Your task to perform on an android device: check the backup settings in the google photos Image 0: 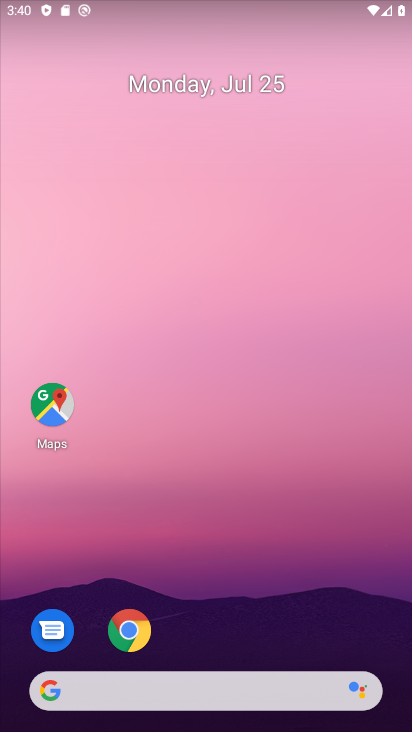
Step 0: drag from (281, 642) to (254, 70)
Your task to perform on an android device: check the backup settings in the google photos Image 1: 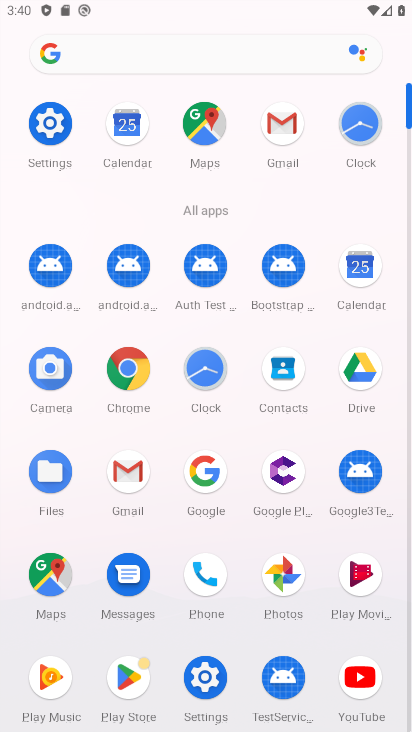
Step 1: click (280, 570)
Your task to perform on an android device: check the backup settings in the google photos Image 2: 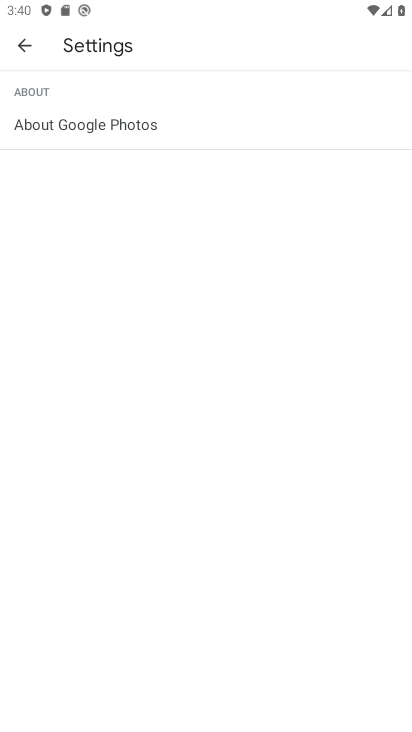
Step 2: click (21, 54)
Your task to perform on an android device: check the backup settings in the google photos Image 3: 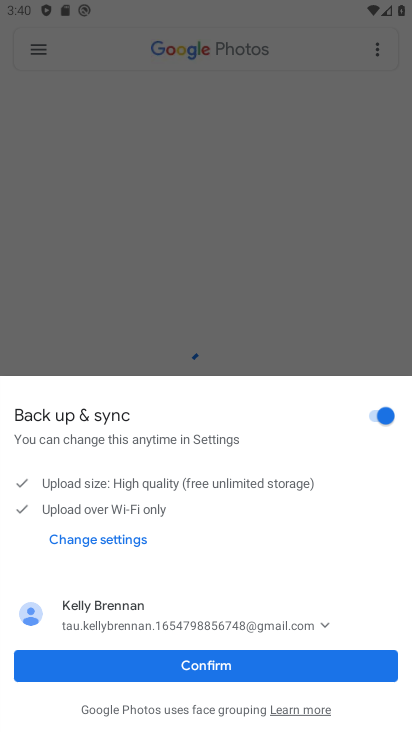
Step 3: click (261, 669)
Your task to perform on an android device: check the backup settings in the google photos Image 4: 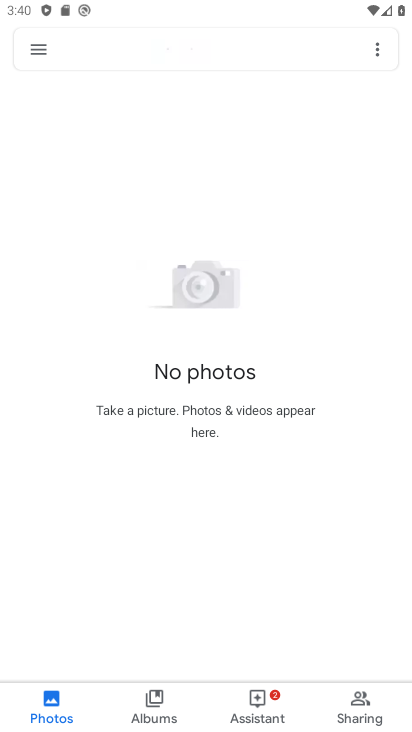
Step 4: click (38, 43)
Your task to perform on an android device: check the backup settings in the google photos Image 5: 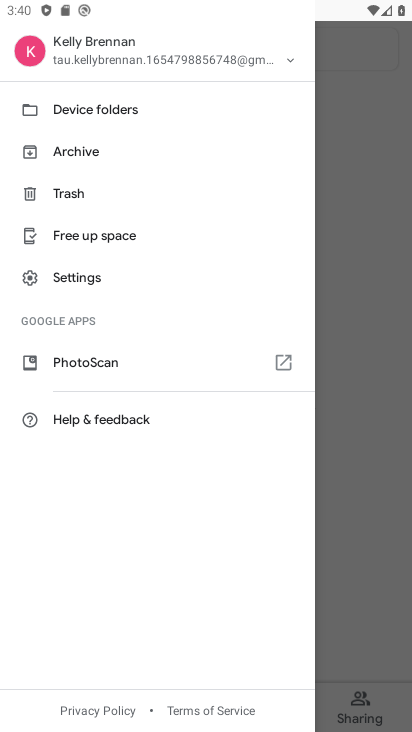
Step 5: click (91, 285)
Your task to perform on an android device: check the backup settings in the google photos Image 6: 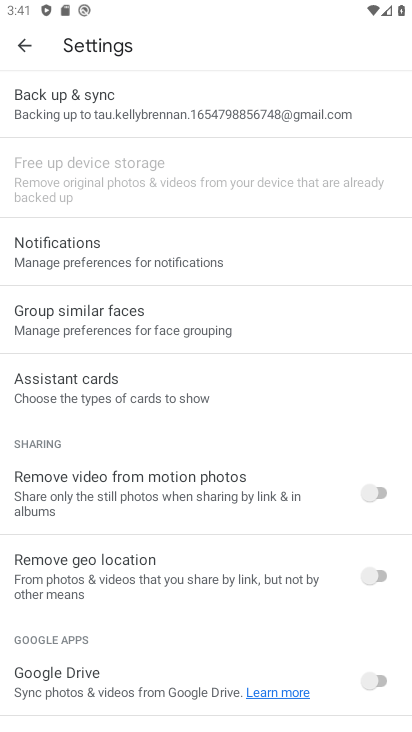
Step 6: click (172, 103)
Your task to perform on an android device: check the backup settings in the google photos Image 7: 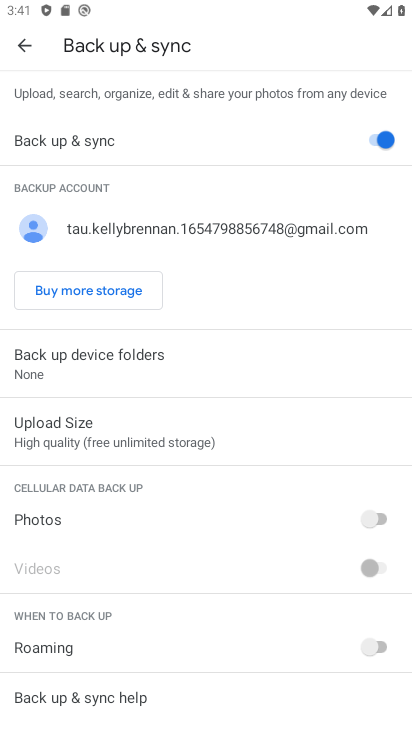
Step 7: click (196, 425)
Your task to perform on an android device: check the backup settings in the google photos Image 8: 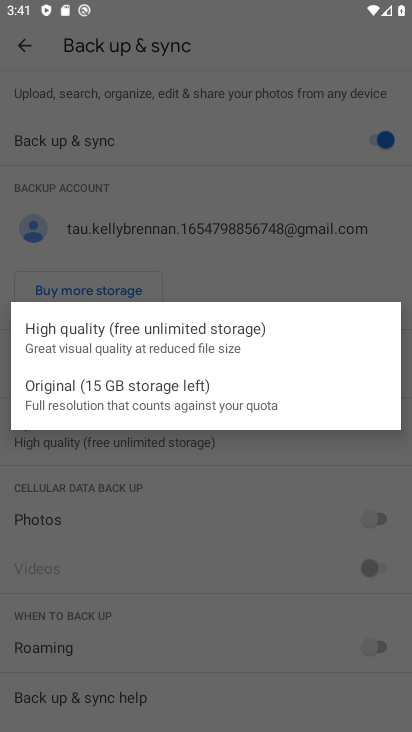
Step 8: click (194, 401)
Your task to perform on an android device: check the backup settings in the google photos Image 9: 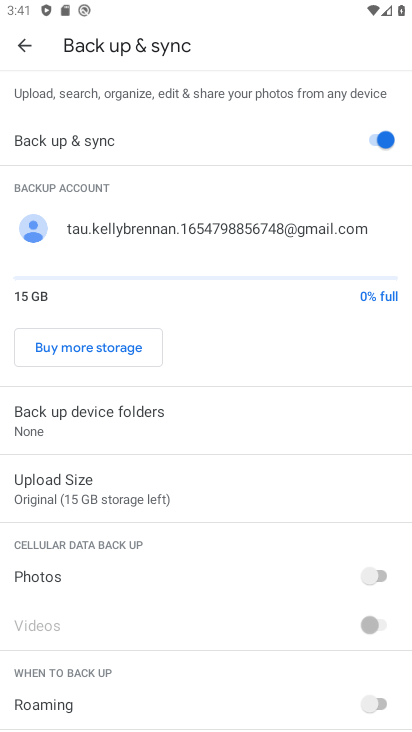
Step 9: task complete